Your task to perform on an android device: Open network settings Image 0: 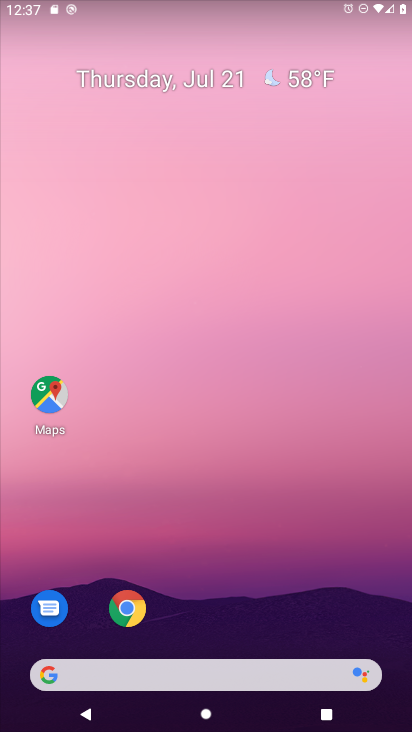
Step 0: press home button
Your task to perform on an android device: Open network settings Image 1: 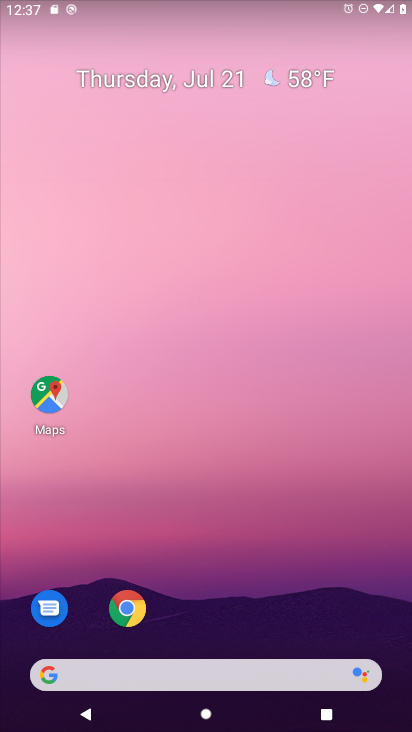
Step 1: drag from (206, 631) to (162, 26)
Your task to perform on an android device: Open network settings Image 2: 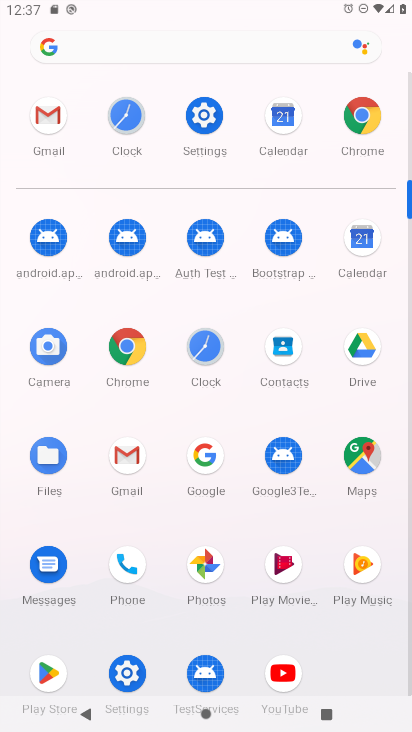
Step 2: click (202, 122)
Your task to perform on an android device: Open network settings Image 3: 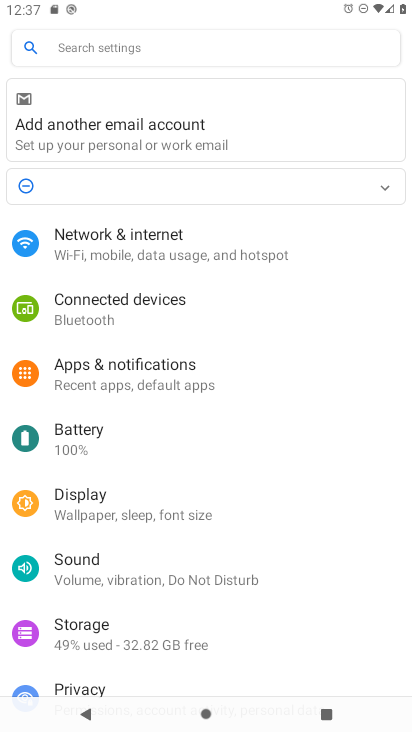
Step 3: click (124, 248)
Your task to perform on an android device: Open network settings Image 4: 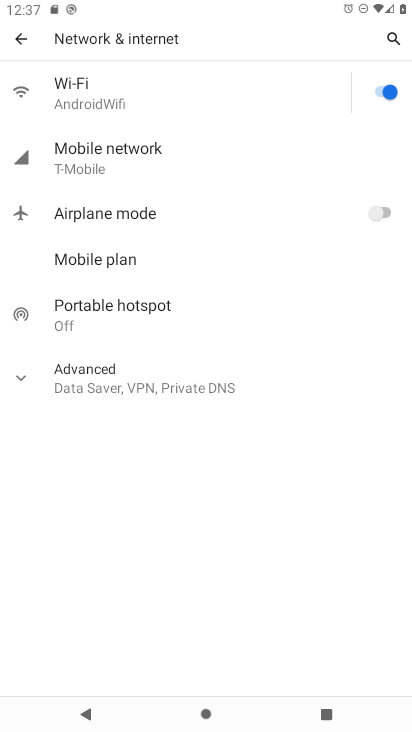
Step 4: task complete